Your task to perform on an android device: Open Chrome and go to settings Image 0: 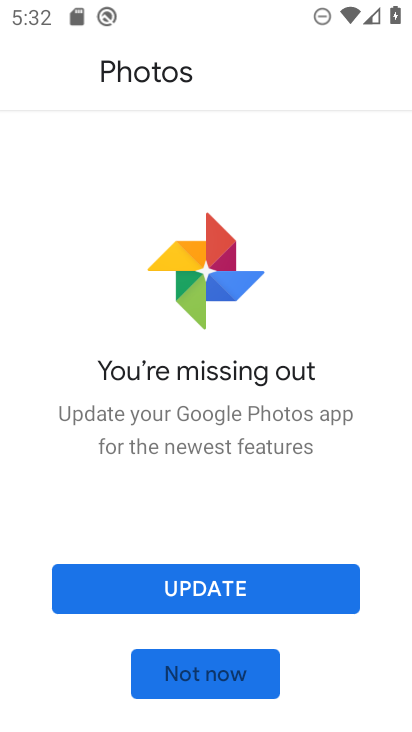
Step 0: press home button
Your task to perform on an android device: Open Chrome and go to settings Image 1: 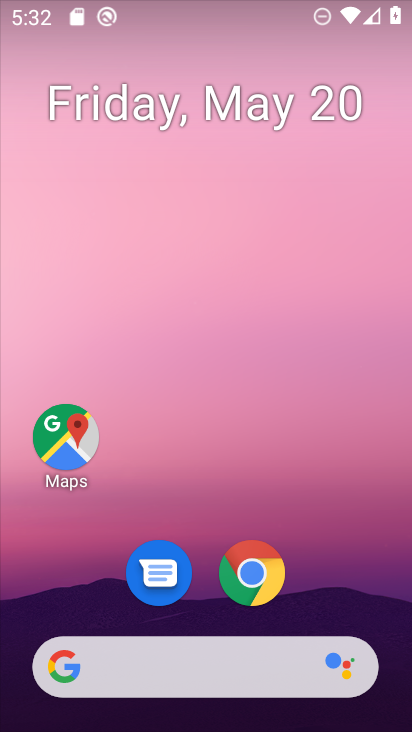
Step 1: click (239, 571)
Your task to perform on an android device: Open Chrome and go to settings Image 2: 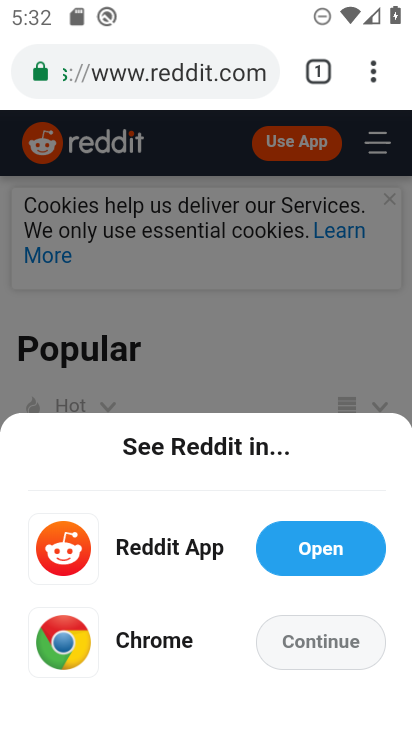
Step 2: click (376, 61)
Your task to perform on an android device: Open Chrome and go to settings Image 3: 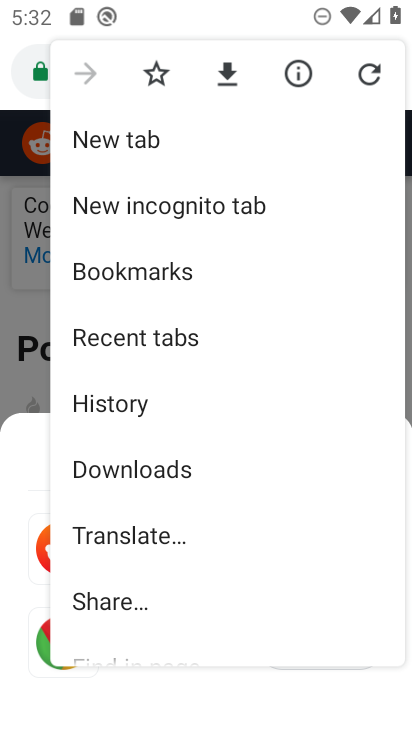
Step 3: drag from (220, 568) to (161, 153)
Your task to perform on an android device: Open Chrome and go to settings Image 4: 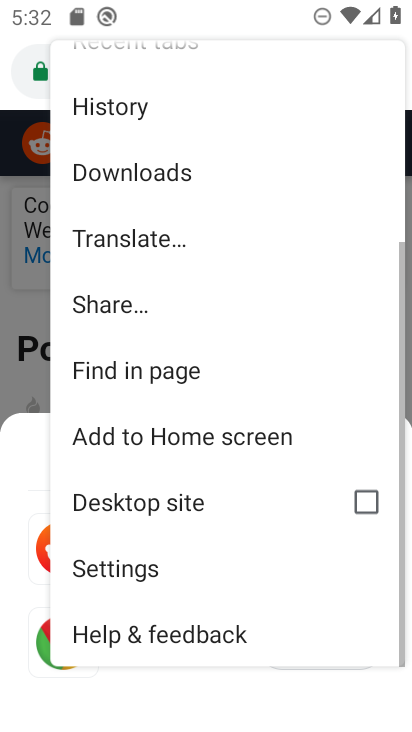
Step 4: click (191, 574)
Your task to perform on an android device: Open Chrome and go to settings Image 5: 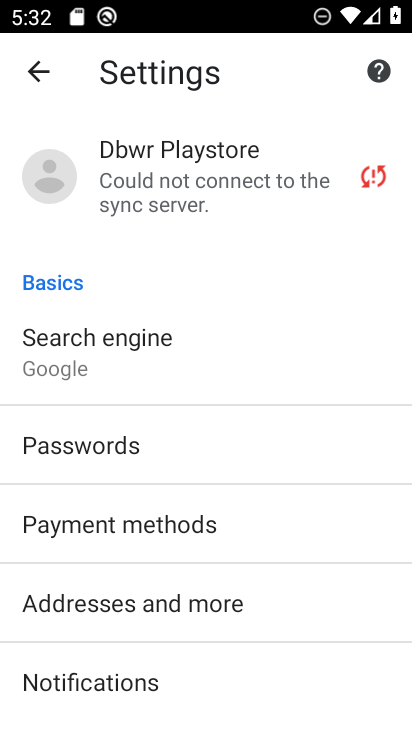
Step 5: task complete